Your task to perform on an android device: Open Youtube and go to the subscriptions tab Image 0: 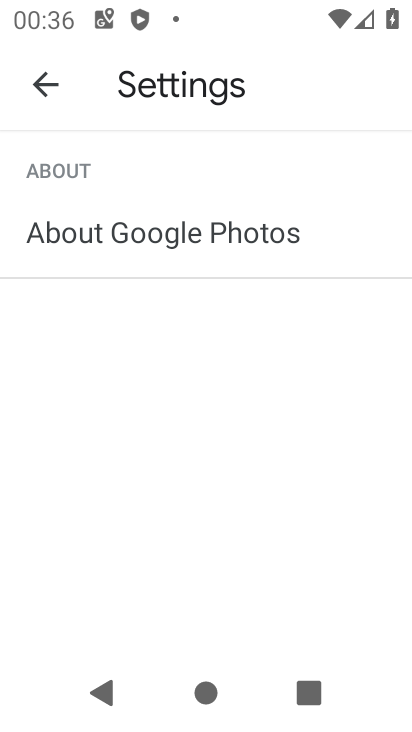
Step 0: press home button
Your task to perform on an android device: Open Youtube and go to the subscriptions tab Image 1: 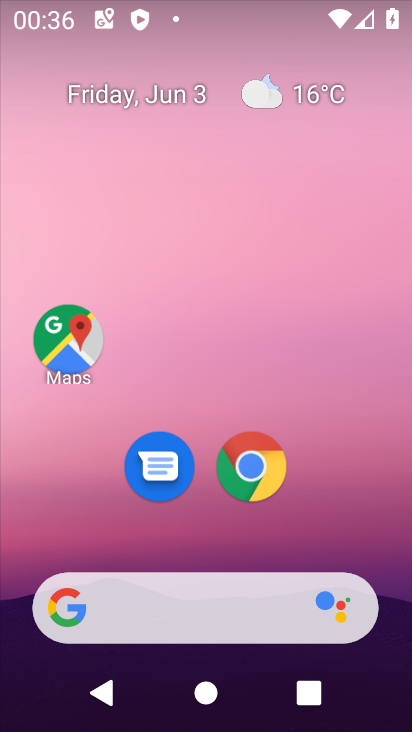
Step 1: drag from (111, 560) to (225, 105)
Your task to perform on an android device: Open Youtube and go to the subscriptions tab Image 2: 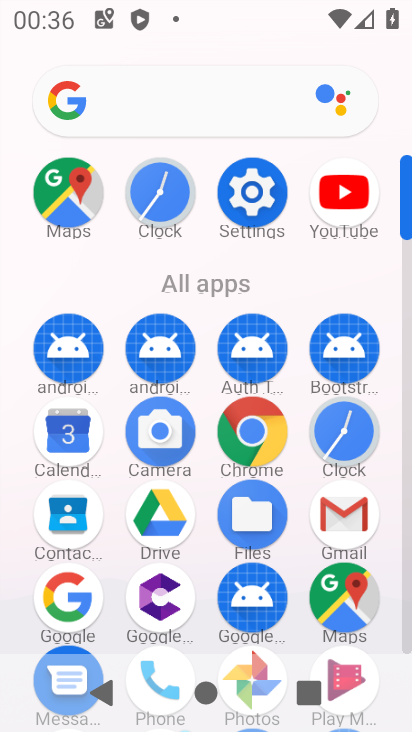
Step 2: drag from (197, 671) to (266, 346)
Your task to perform on an android device: Open Youtube and go to the subscriptions tab Image 3: 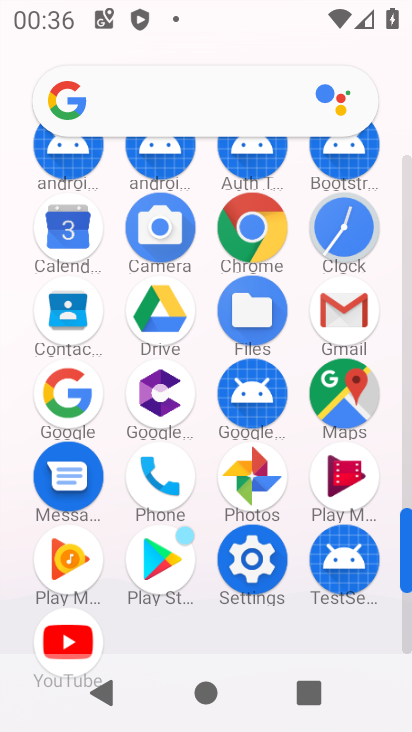
Step 3: click (63, 641)
Your task to perform on an android device: Open Youtube and go to the subscriptions tab Image 4: 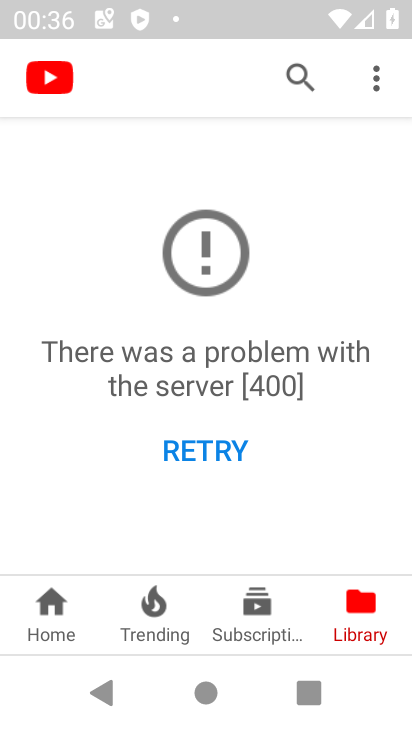
Step 4: click (246, 606)
Your task to perform on an android device: Open Youtube and go to the subscriptions tab Image 5: 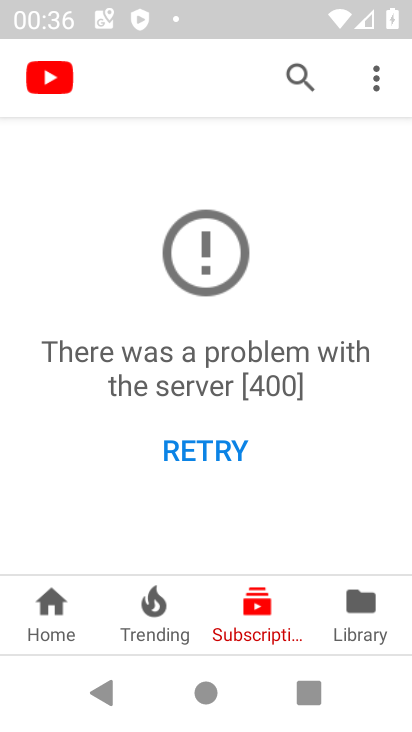
Step 5: click (246, 605)
Your task to perform on an android device: Open Youtube and go to the subscriptions tab Image 6: 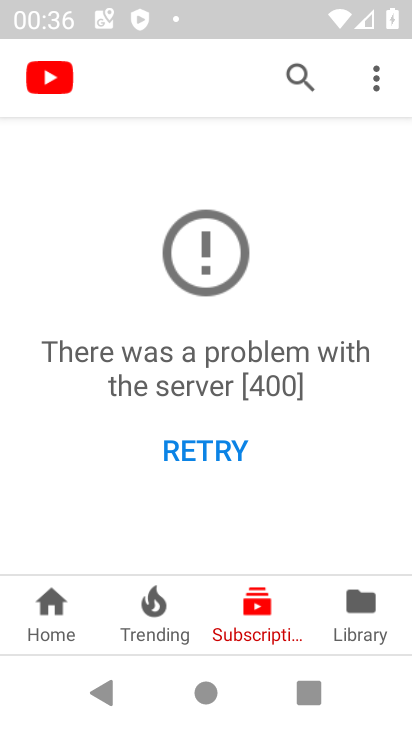
Step 6: click (246, 605)
Your task to perform on an android device: Open Youtube and go to the subscriptions tab Image 7: 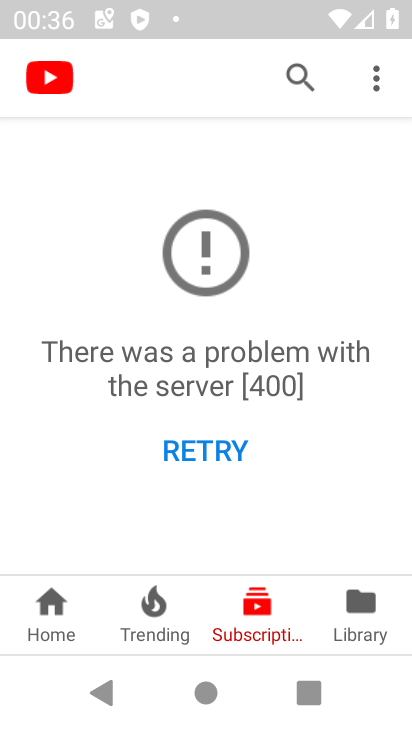
Step 7: task complete